Your task to perform on an android device: Open the Play Movies app and select the watchlist tab. Image 0: 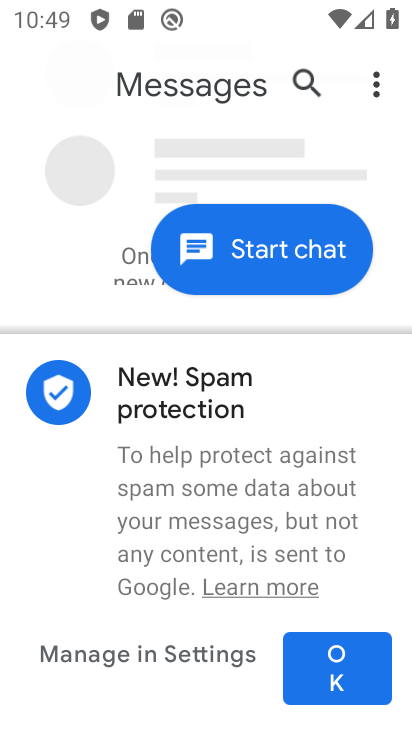
Step 0: press home button
Your task to perform on an android device: Open the Play Movies app and select the watchlist tab. Image 1: 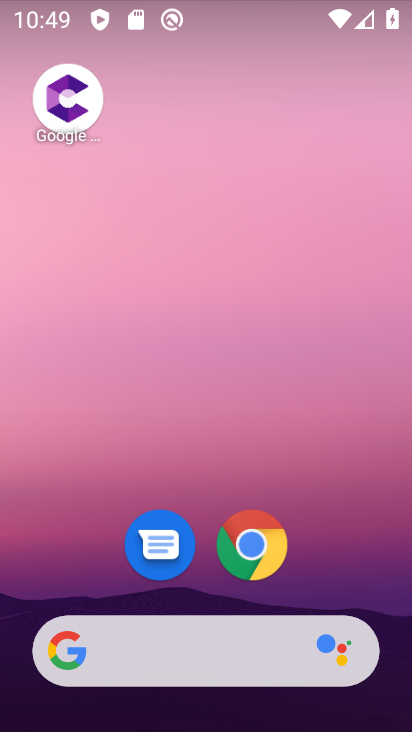
Step 1: drag from (279, 496) to (273, 1)
Your task to perform on an android device: Open the Play Movies app and select the watchlist tab. Image 2: 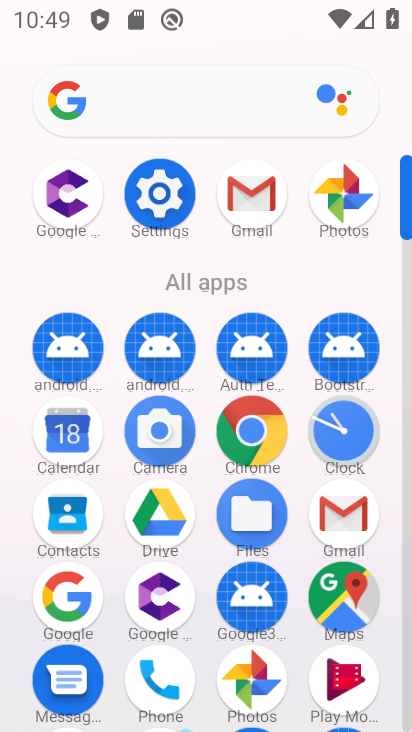
Step 2: drag from (334, 650) to (309, 188)
Your task to perform on an android device: Open the Play Movies app and select the watchlist tab. Image 3: 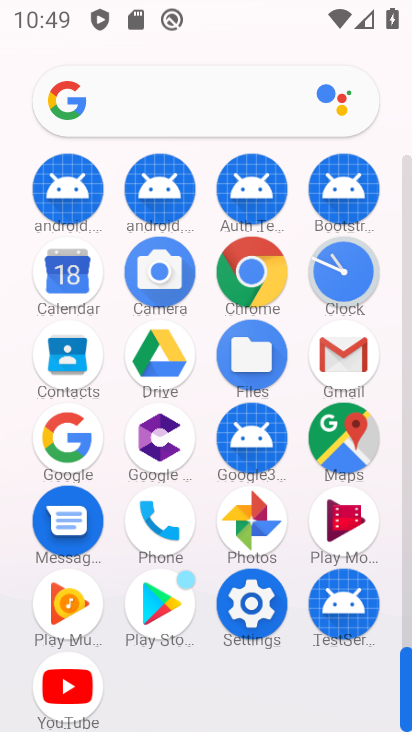
Step 3: click (346, 511)
Your task to perform on an android device: Open the Play Movies app and select the watchlist tab. Image 4: 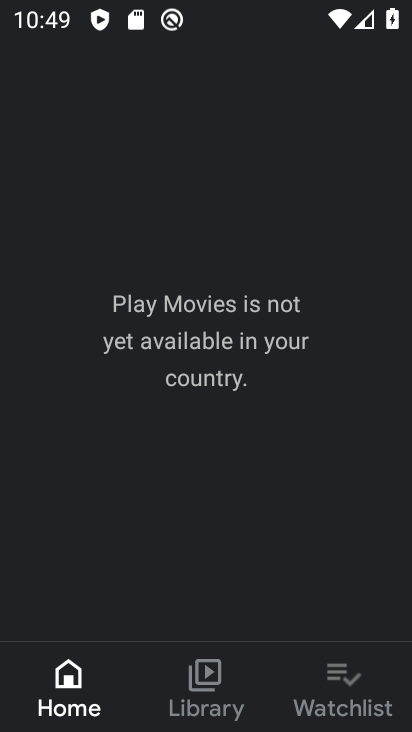
Step 4: click (371, 665)
Your task to perform on an android device: Open the Play Movies app and select the watchlist tab. Image 5: 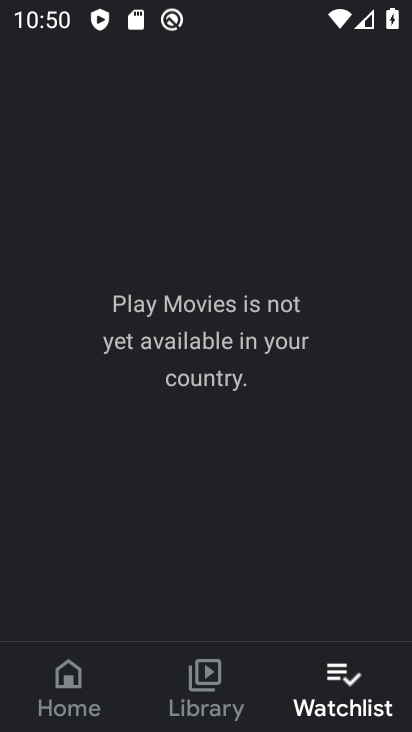
Step 5: task complete